Your task to perform on an android device: set an alarm Image 0: 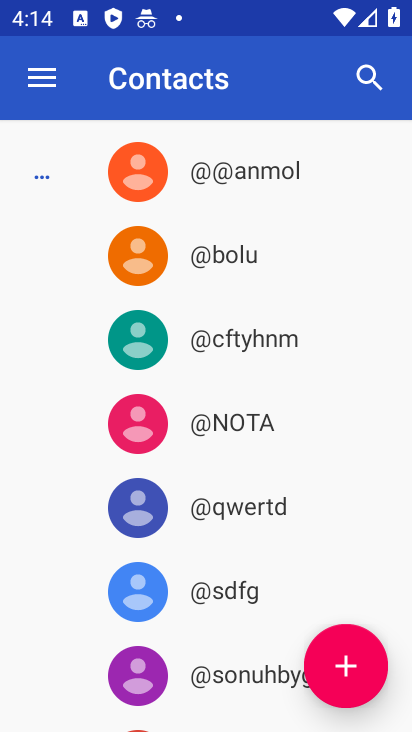
Step 0: press home button
Your task to perform on an android device: set an alarm Image 1: 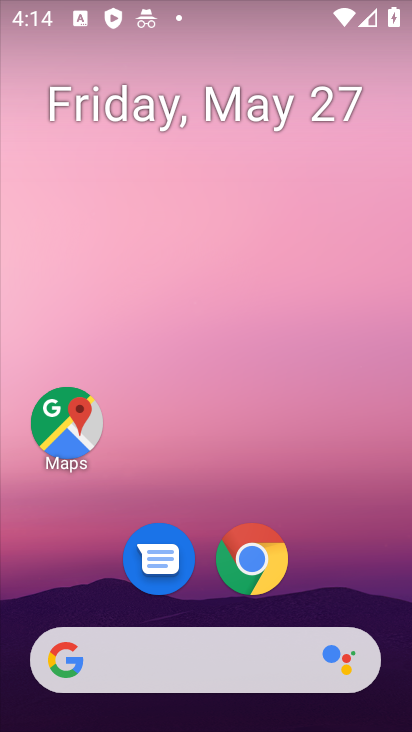
Step 1: drag from (322, 181) to (314, 2)
Your task to perform on an android device: set an alarm Image 2: 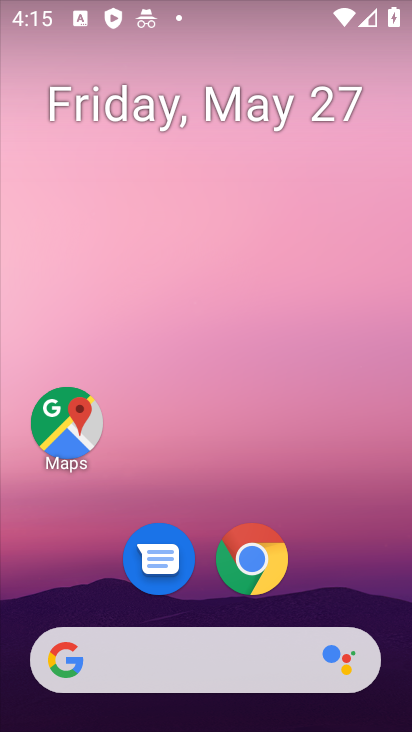
Step 2: drag from (221, 617) to (287, 0)
Your task to perform on an android device: set an alarm Image 3: 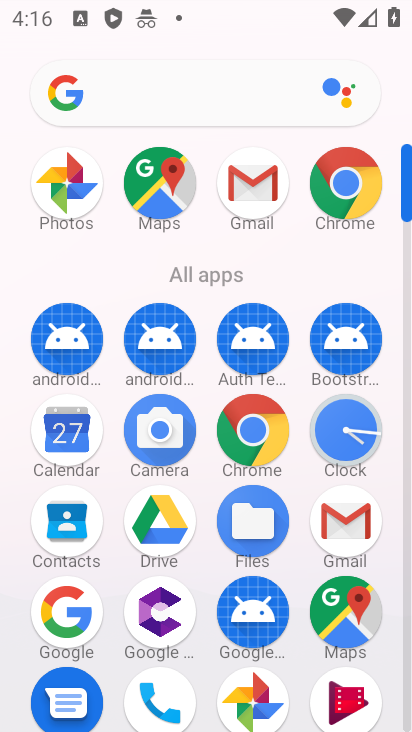
Step 3: click (337, 423)
Your task to perform on an android device: set an alarm Image 4: 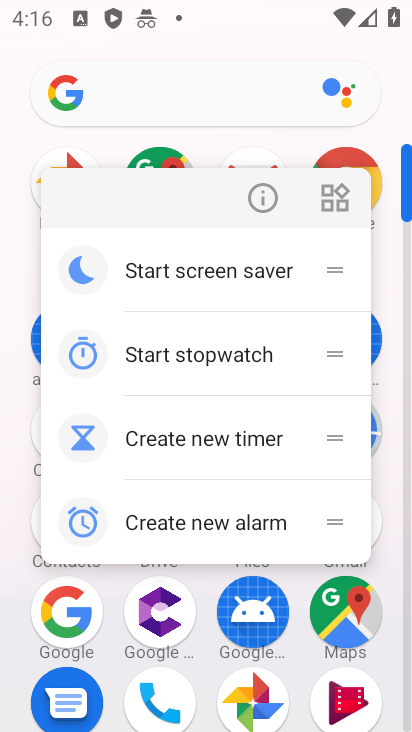
Step 4: click (390, 105)
Your task to perform on an android device: set an alarm Image 5: 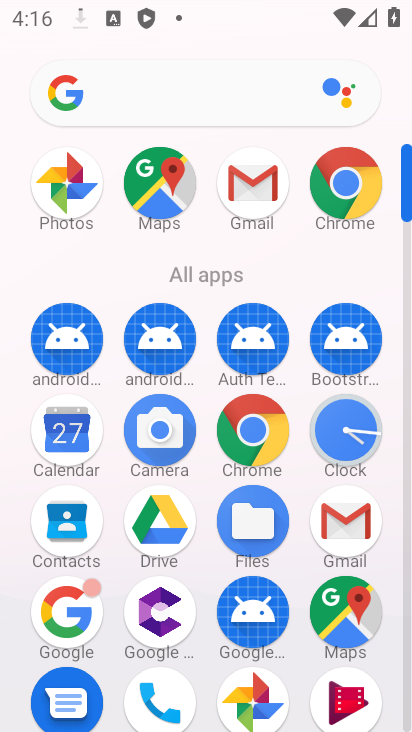
Step 5: click (352, 433)
Your task to perform on an android device: set an alarm Image 6: 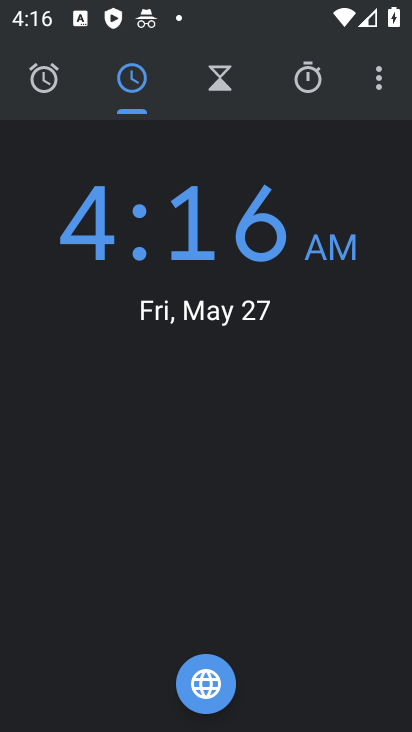
Step 6: click (58, 78)
Your task to perform on an android device: set an alarm Image 7: 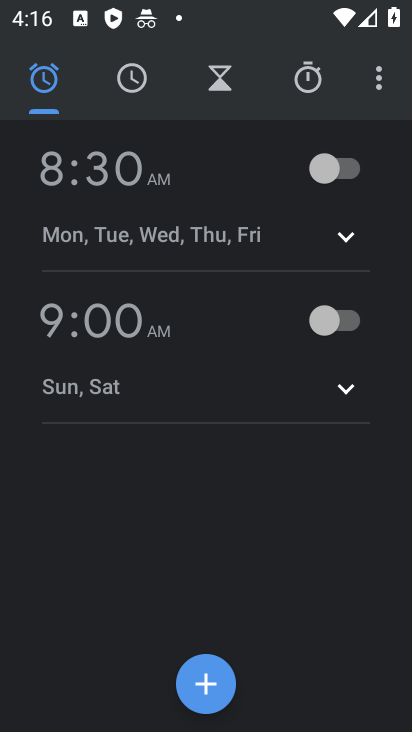
Step 7: click (214, 681)
Your task to perform on an android device: set an alarm Image 8: 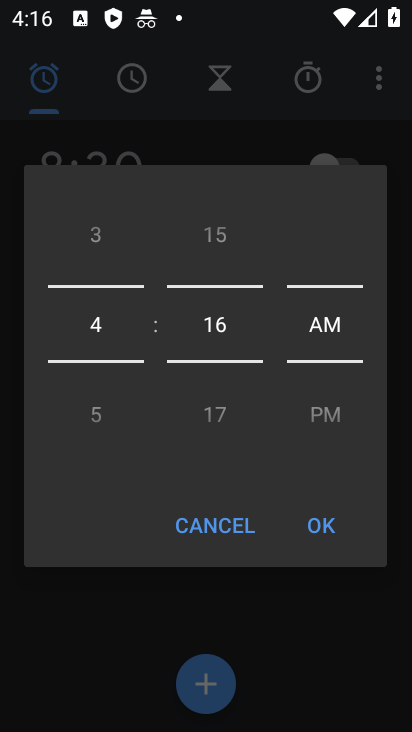
Step 8: click (327, 528)
Your task to perform on an android device: set an alarm Image 9: 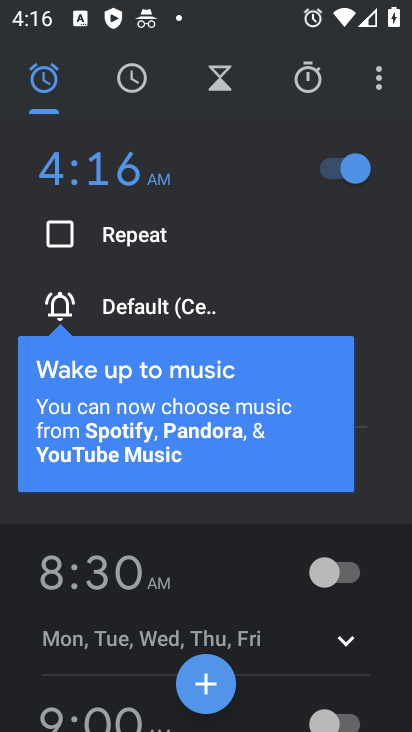
Step 9: task complete